Your task to perform on an android device: turn off picture-in-picture Image 0: 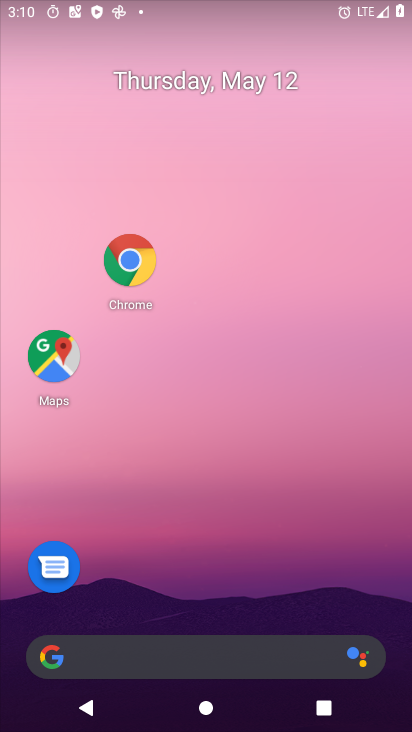
Step 0: click (132, 264)
Your task to perform on an android device: turn off picture-in-picture Image 1: 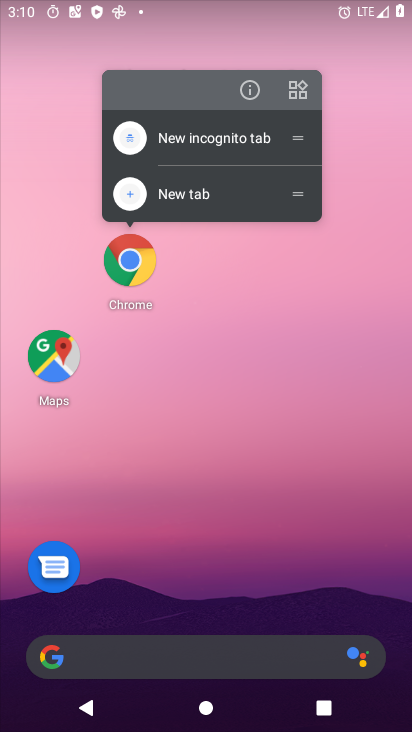
Step 1: click (246, 90)
Your task to perform on an android device: turn off picture-in-picture Image 2: 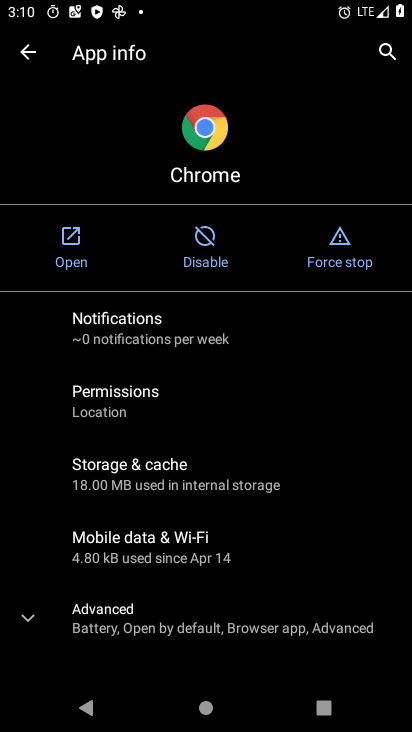
Step 2: click (122, 619)
Your task to perform on an android device: turn off picture-in-picture Image 3: 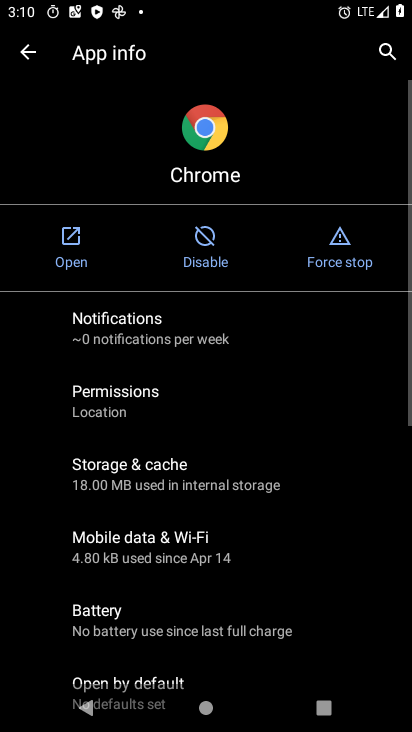
Step 3: drag from (197, 659) to (197, 354)
Your task to perform on an android device: turn off picture-in-picture Image 4: 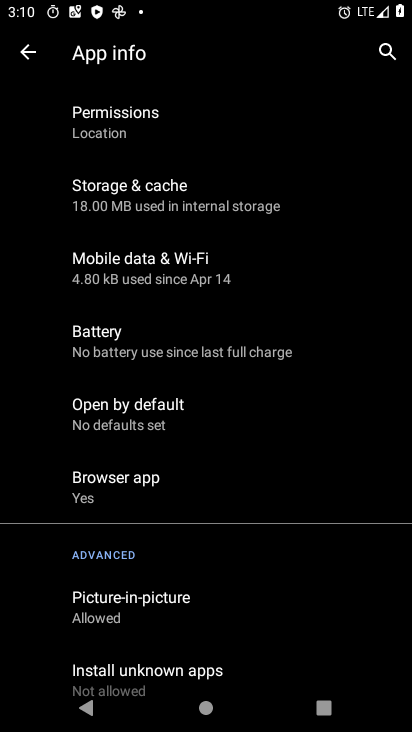
Step 4: click (132, 615)
Your task to perform on an android device: turn off picture-in-picture Image 5: 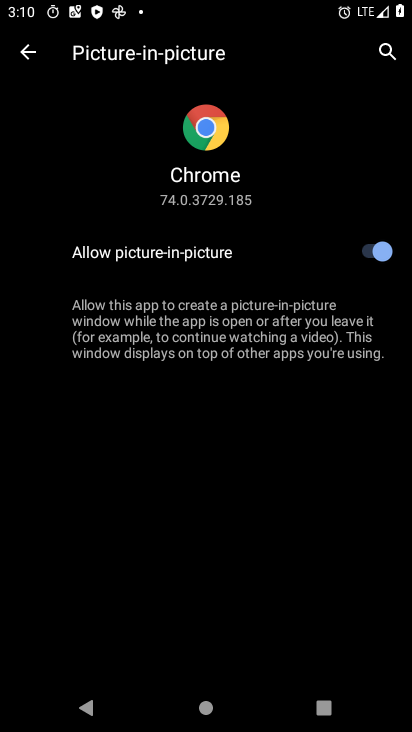
Step 5: click (375, 247)
Your task to perform on an android device: turn off picture-in-picture Image 6: 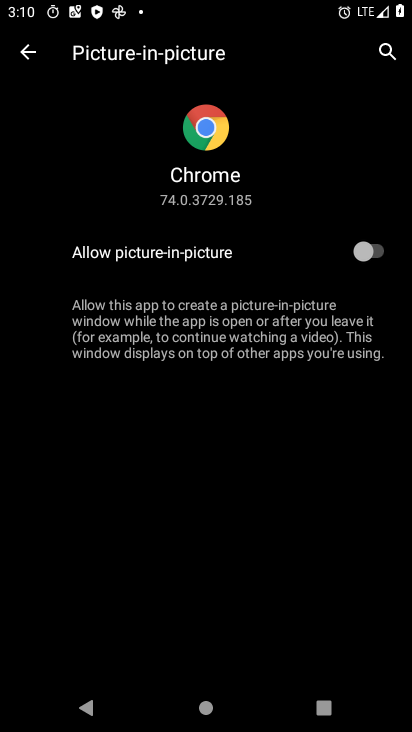
Step 6: task complete